Your task to perform on an android device: open wifi settings Image 0: 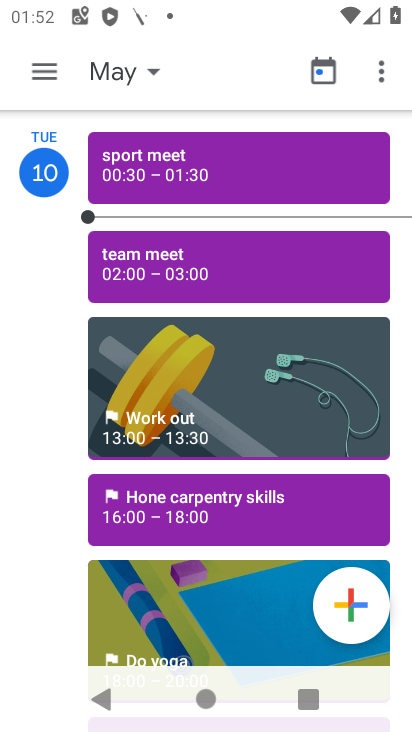
Step 0: press home button
Your task to perform on an android device: open wifi settings Image 1: 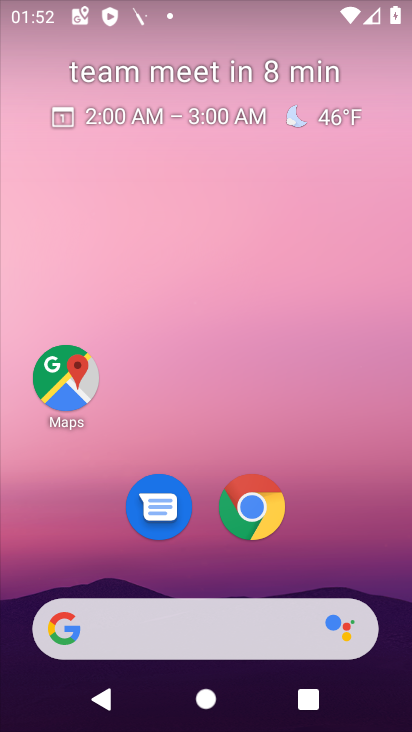
Step 1: drag from (238, 659) to (394, 212)
Your task to perform on an android device: open wifi settings Image 2: 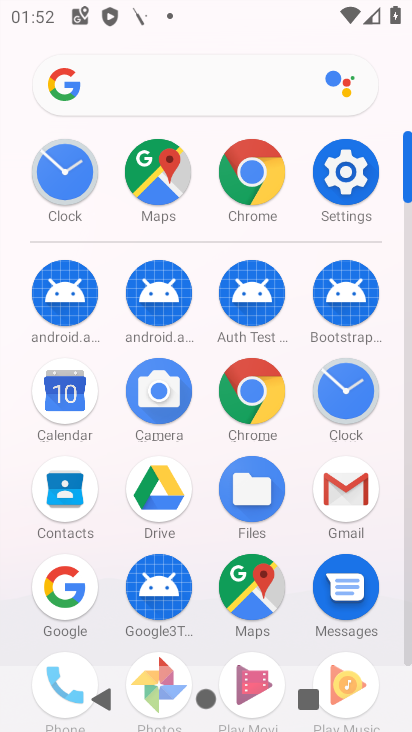
Step 2: click (343, 184)
Your task to perform on an android device: open wifi settings Image 3: 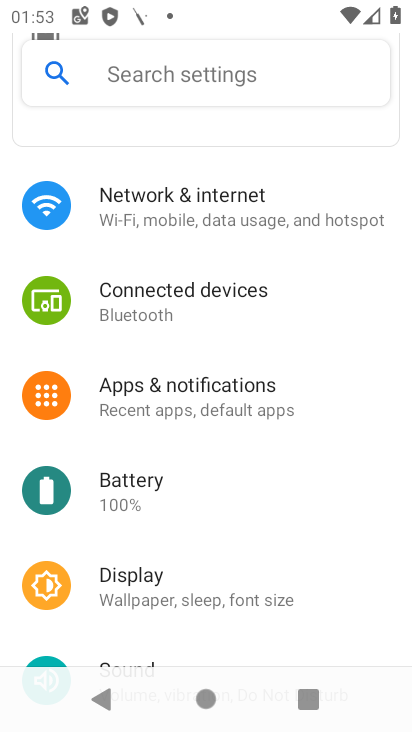
Step 3: click (224, 203)
Your task to perform on an android device: open wifi settings Image 4: 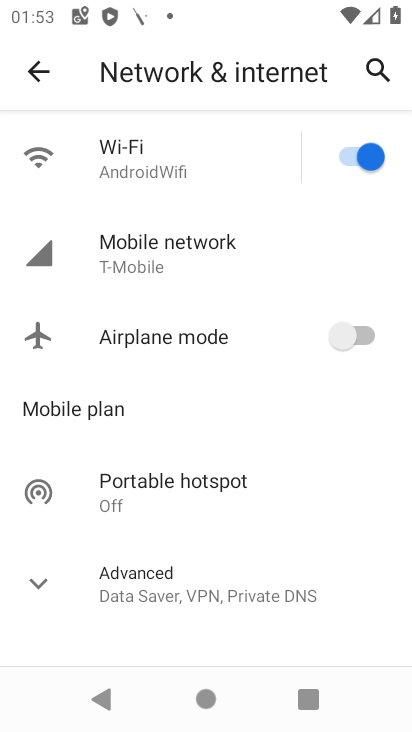
Step 4: click (200, 168)
Your task to perform on an android device: open wifi settings Image 5: 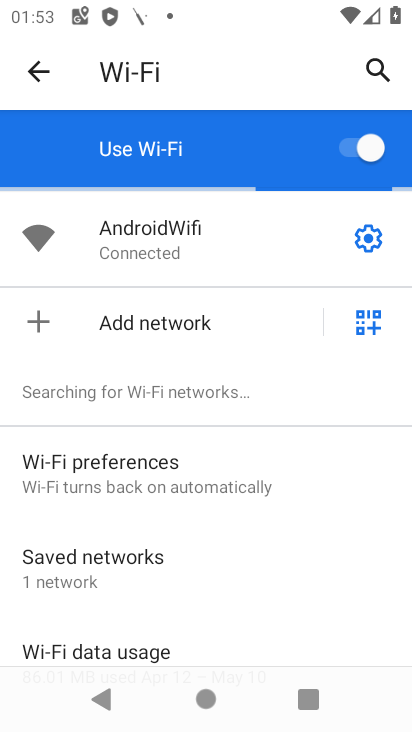
Step 5: task complete